Your task to perform on an android device: delete location history Image 0: 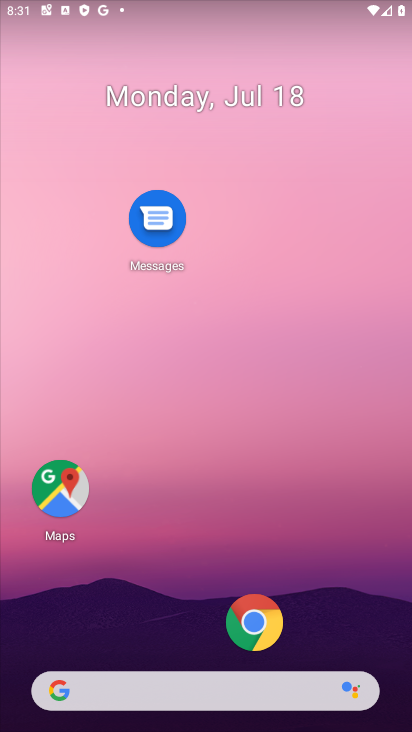
Step 0: drag from (150, 611) to (156, 173)
Your task to perform on an android device: delete location history Image 1: 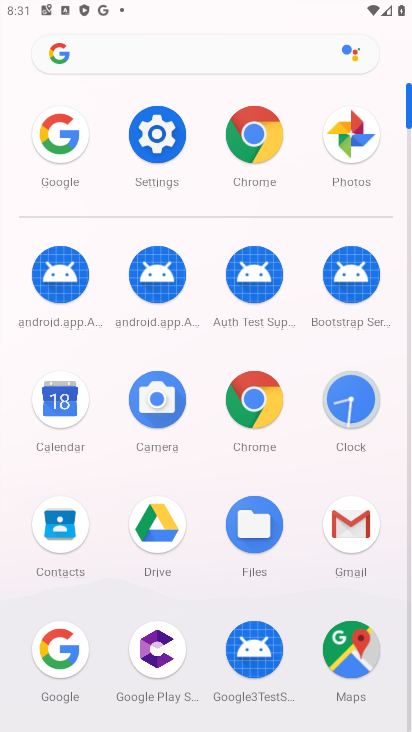
Step 1: drag from (251, 561) to (242, 157)
Your task to perform on an android device: delete location history Image 2: 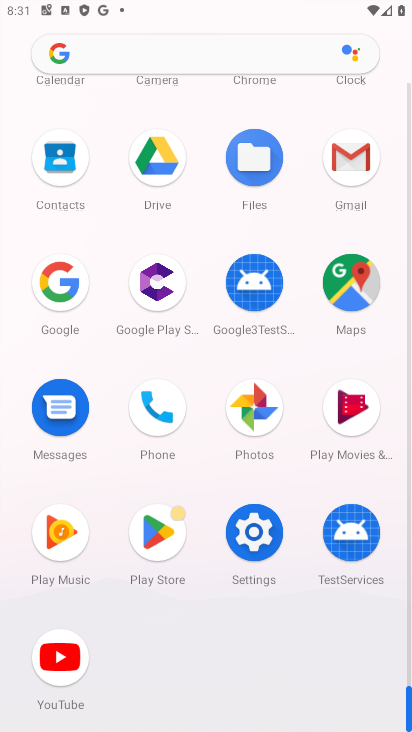
Step 2: click (261, 550)
Your task to perform on an android device: delete location history Image 3: 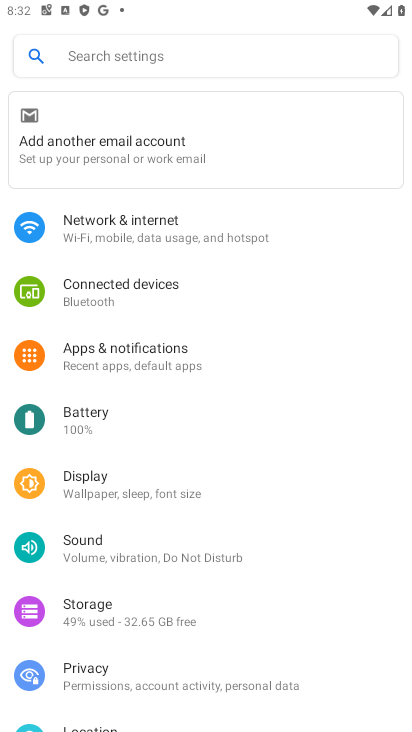
Step 3: drag from (152, 594) to (162, 317)
Your task to perform on an android device: delete location history Image 4: 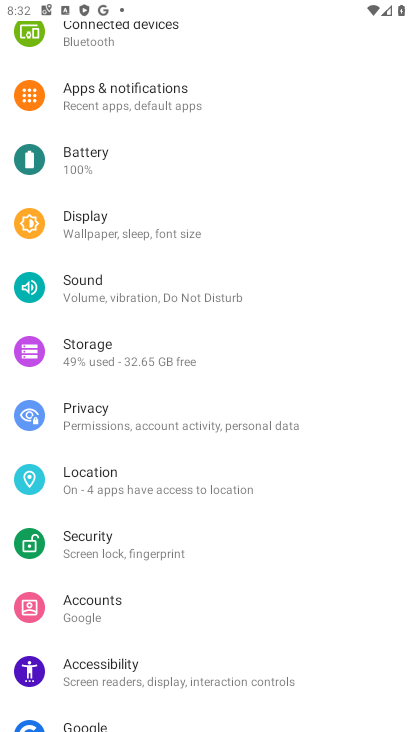
Step 4: click (149, 492)
Your task to perform on an android device: delete location history Image 5: 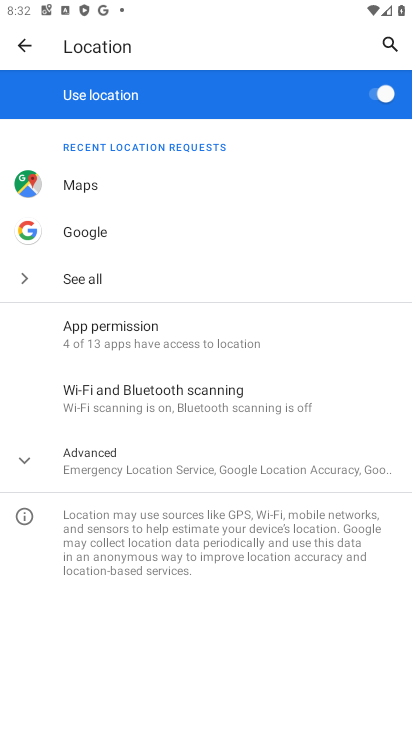
Step 5: click (164, 472)
Your task to perform on an android device: delete location history Image 6: 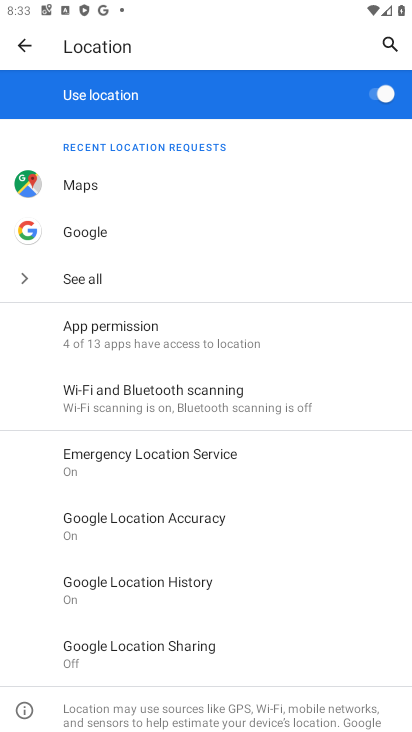
Step 6: click (183, 583)
Your task to perform on an android device: delete location history Image 7: 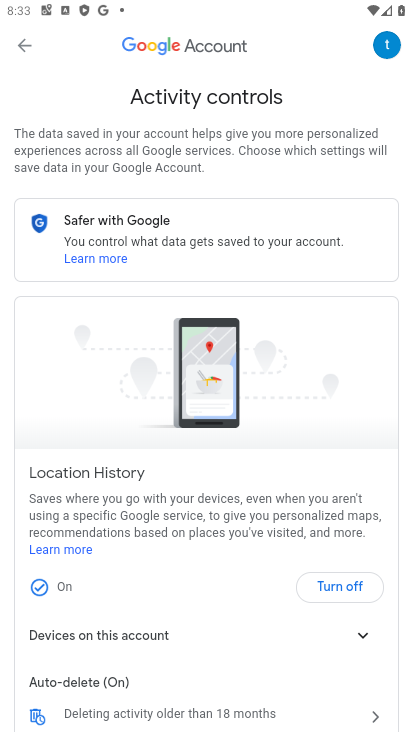
Step 7: drag from (184, 613) to (171, 394)
Your task to perform on an android device: delete location history Image 8: 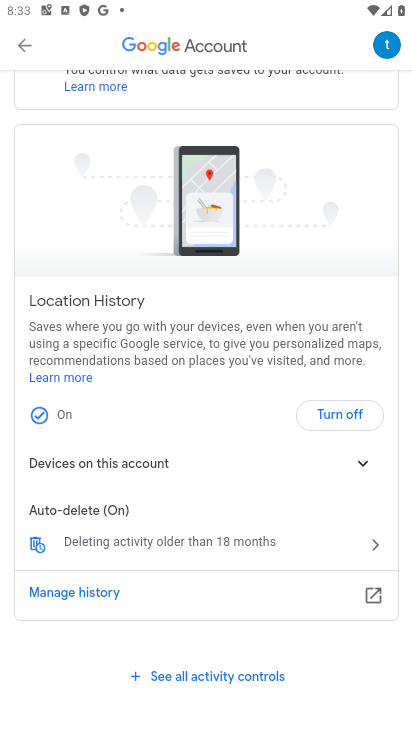
Step 8: click (220, 538)
Your task to perform on an android device: delete location history Image 9: 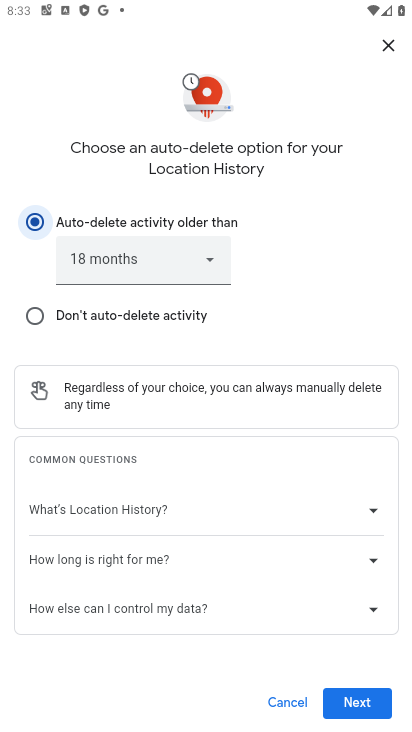
Step 9: click (373, 711)
Your task to perform on an android device: delete location history Image 10: 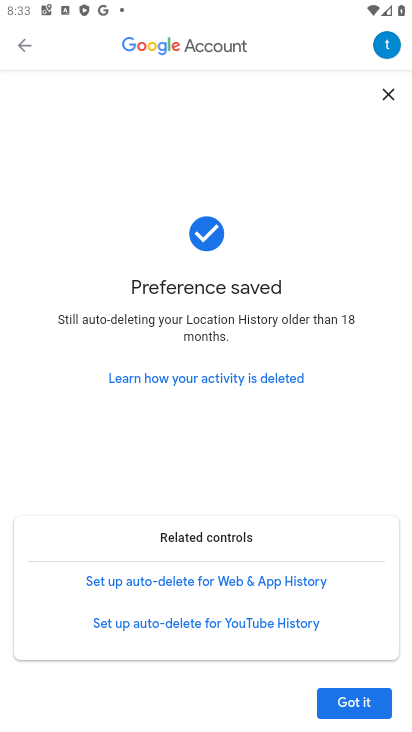
Step 10: click (349, 706)
Your task to perform on an android device: delete location history Image 11: 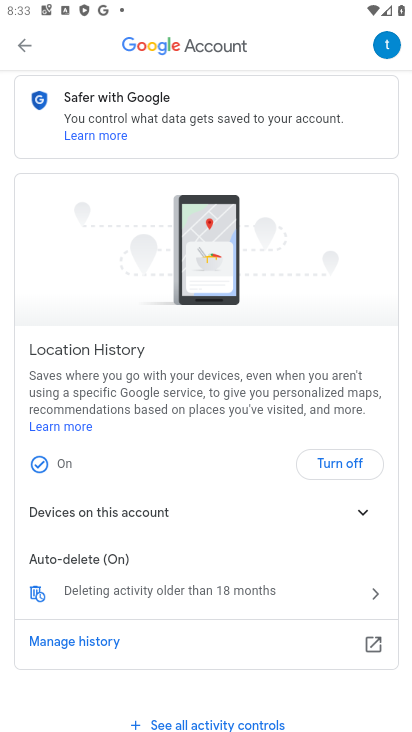
Step 11: task complete